Your task to perform on an android device: toggle notification dots Image 0: 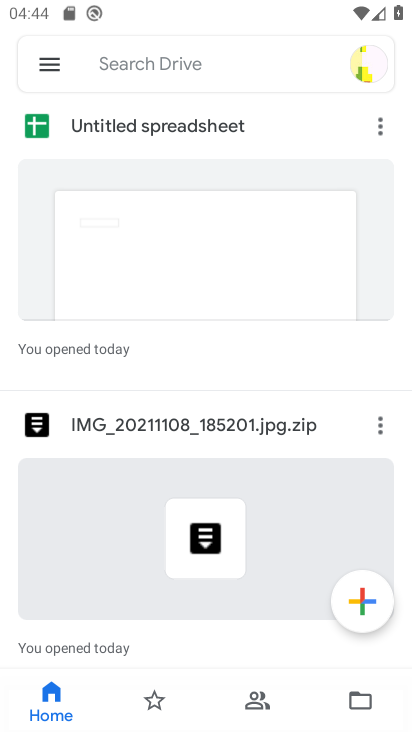
Step 0: press home button
Your task to perform on an android device: toggle notification dots Image 1: 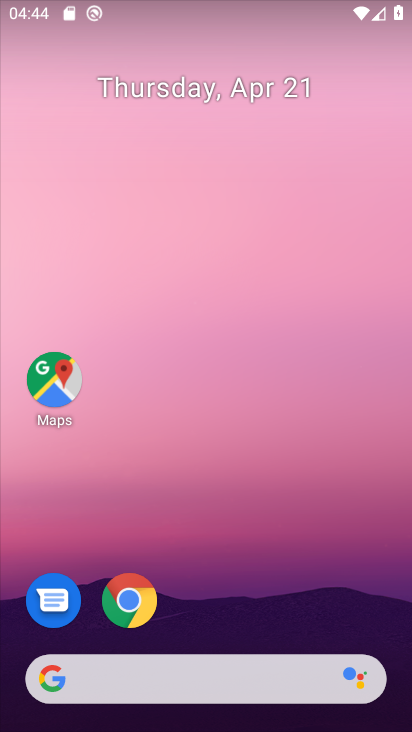
Step 1: drag from (361, 591) to (360, 8)
Your task to perform on an android device: toggle notification dots Image 2: 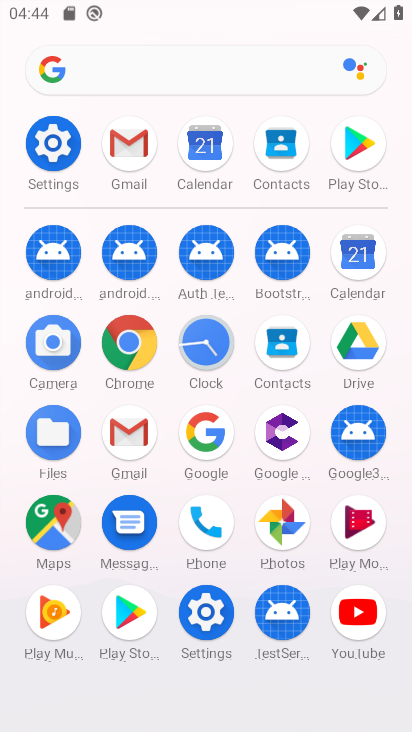
Step 2: click (51, 151)
Your task to perform on an android device: toggle notification dots Image 3: 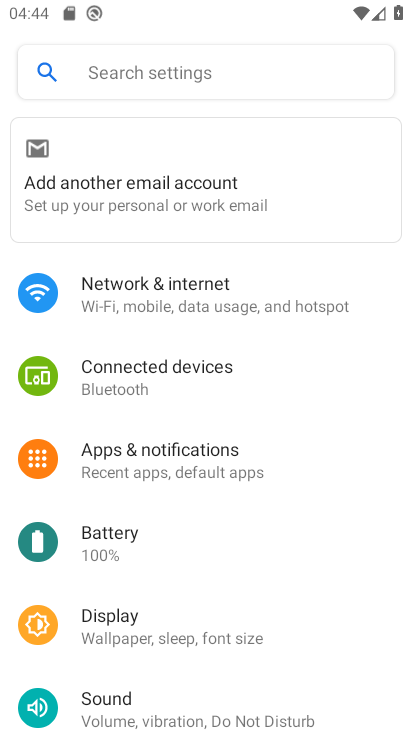
Step 3: click (192, 455)
Your task to perform on an android device: toggle notification dots Image 4: 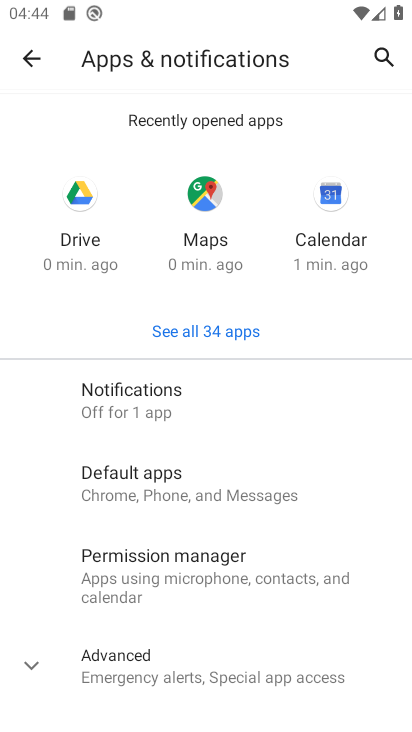
Step 4: drag from (190, 482) to (188, 222)
Your task to perform on an android device: toggle notification dots Image 5: 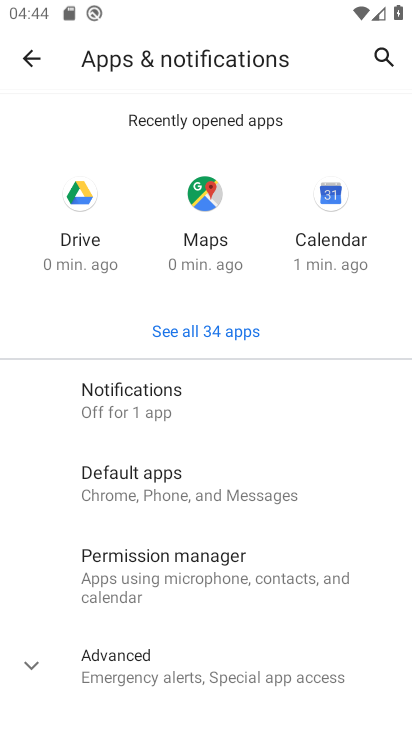
Step 5: click (100, 406)
Your task to perform on an android device: toggle notification dots Image 6: 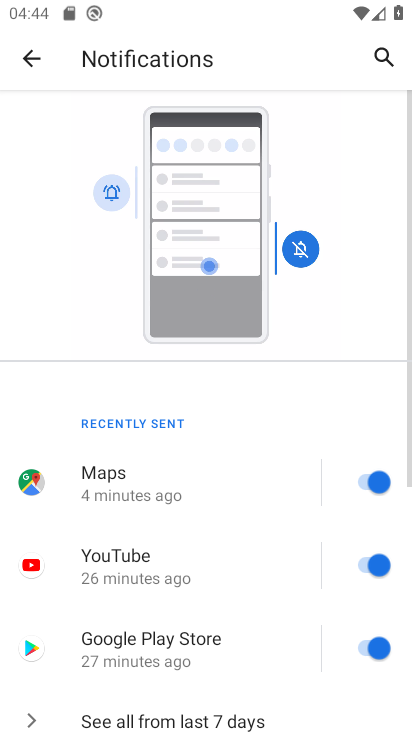
Step 6: drag from (185, 492) to (170, 97)
Your task to perform on an android device: toggle notification dots Image 7: 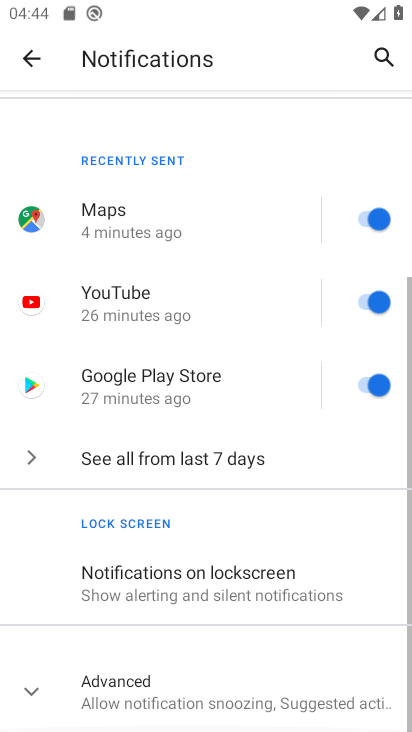
Step 7: drag from (168, 526) to (168, 112)
Your task to perform on an android device: toggle notification dots Image 8: 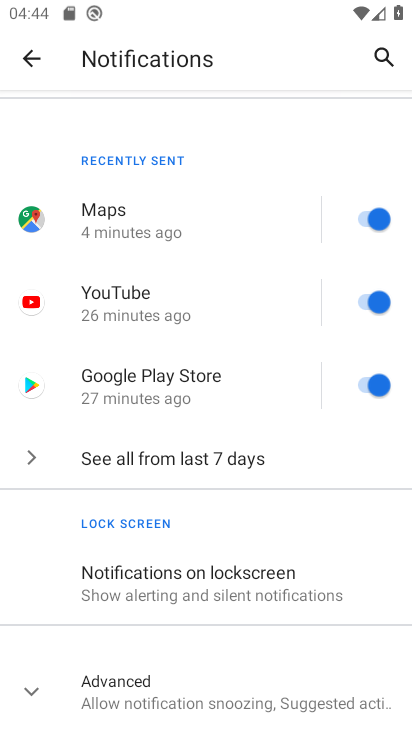
Step 8: click (27, 697)
Your task to perform on an android device: toggle notification dots Image 9: 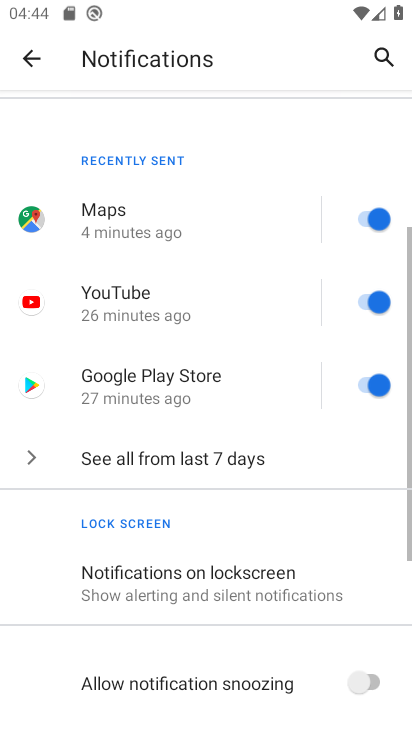
Step 9: drag from (170, 624) to (170, 340)
Your task to perform on an android device: toggle notification dots Image 10: 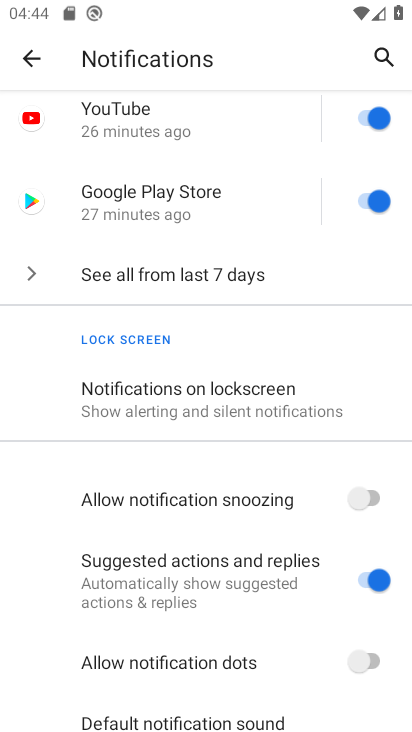
Step 10: drag from (139, 593) to (152, 325)
Your task to perform on an android device: toggle notification dots Image 11: 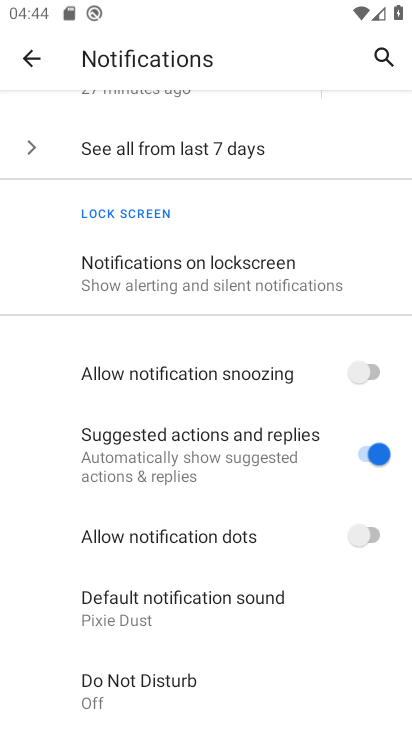
Step 11: click (364, 530)
Your task to perform on an android device: toggle notification dots Image 12: 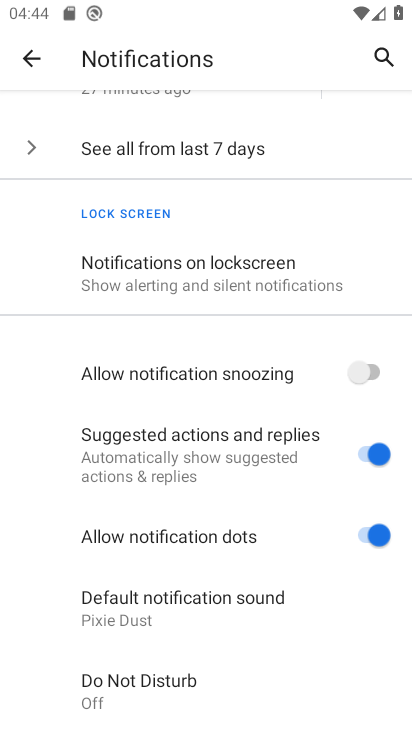
Step 12: task complete